Your task to perform on an android device: check the backup settings in the google photos Image 0: 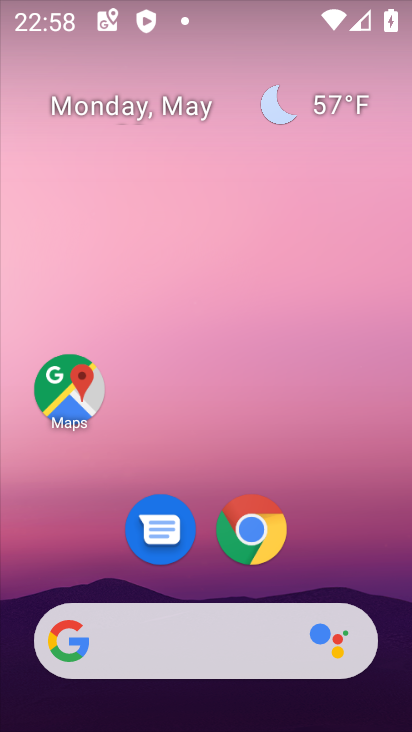
Step 0: click (223, 649)
Your task to perform on an android device: check the backup settings in the google photos Image 1: 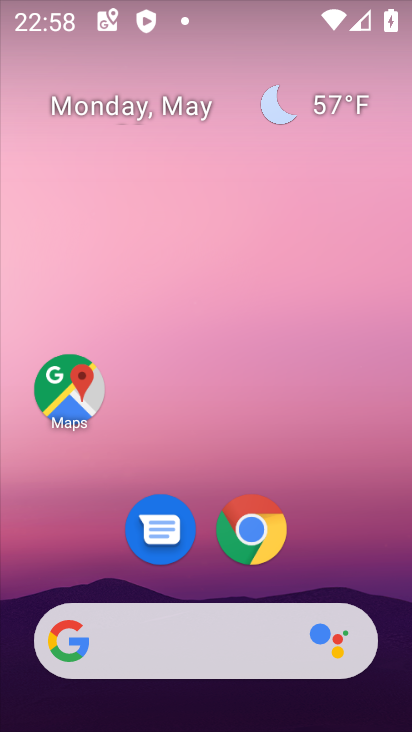
Step 1: drag from (223, 401) to (223, 78)
Your task to perform on an android device: check the backup settings in the google photos Image 2: 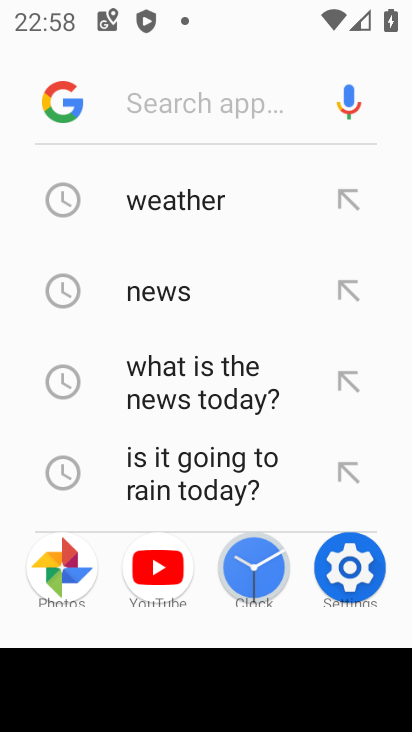
Step 2: press home button
Your task to perform on an android device: check the backup settings in the google photos Image 3: 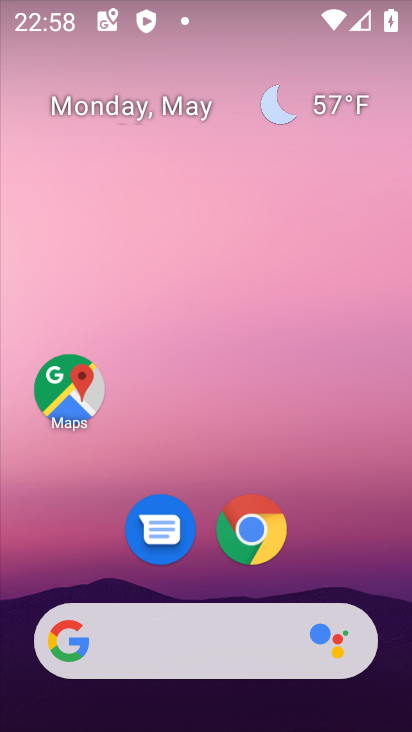
Step 3: drag from (224, 725) to (233, 168)
Your task to perform on an android device: check the backup settings in the google photos Image 4: 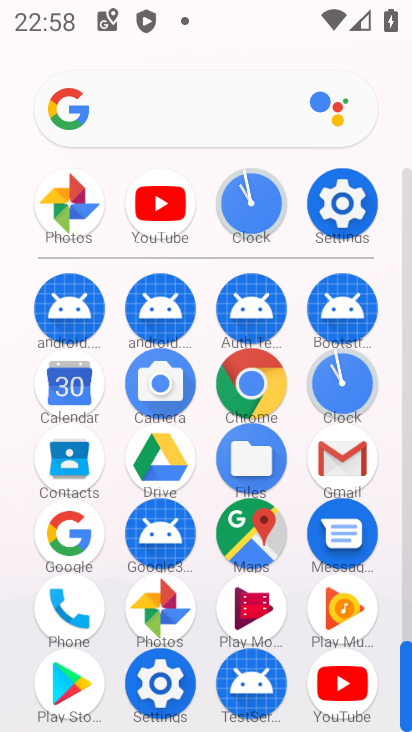
Step 4: click (161, 603)
Your task to perform on an android device: check the backup settings in the google photos Image 5: 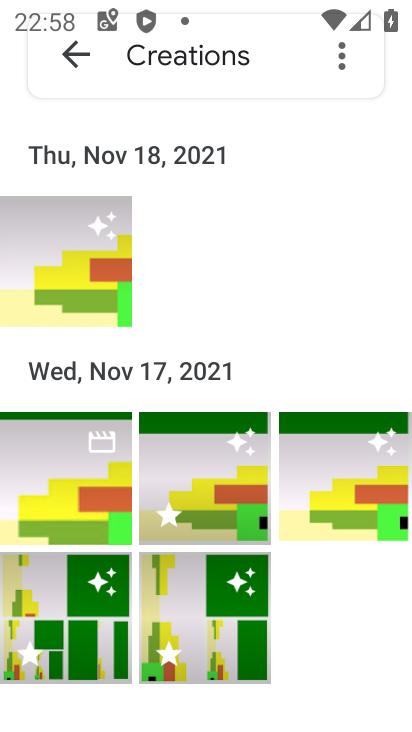
Step 5: click (65, 54)
Your task to perform on an android device: check the backup settings in the google photos Image 6: 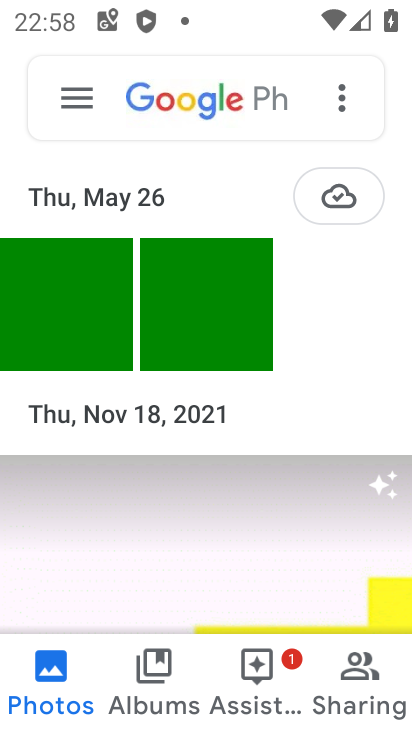
Step 6: click (70, 95)
Your task to perform on an android device: check the backup settings in the google photos Image 7: 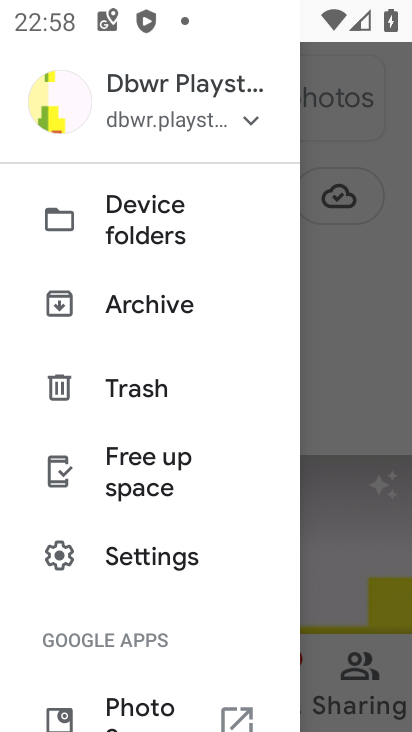
Step 7: click (138, 556)
Your task to perform on an android device: check the backup settings in the google photos Image 8: 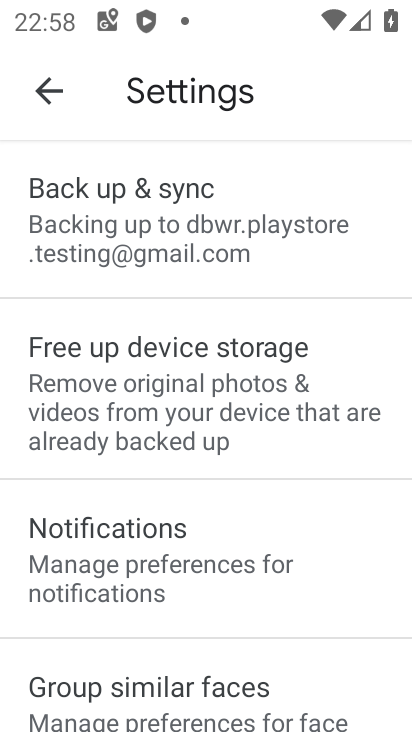
Step 8: click (116, 222)
Your task to perform on an android device: check the backup settings in the google photos Image 9: 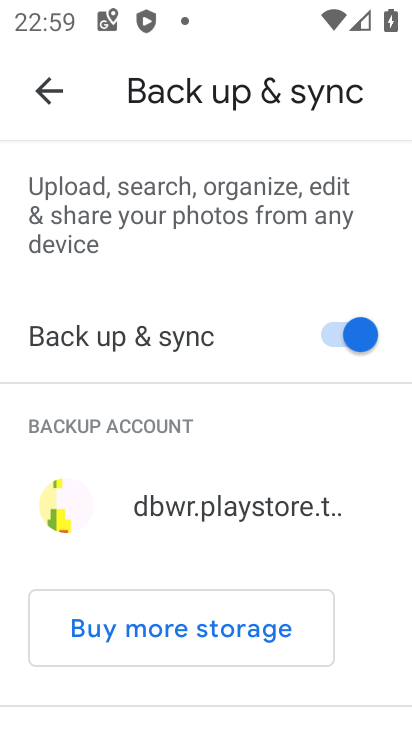
Step 9: task complete